Your task to perform on an android device: Open Chrome and go to the settings page Image 0: 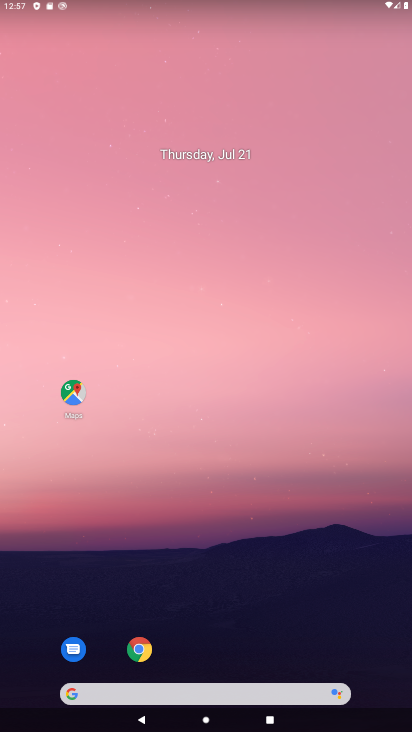
Step 0: click (141, 657)
Your task to perform on an android device: Open Chrome and go to the settings page Image 1: 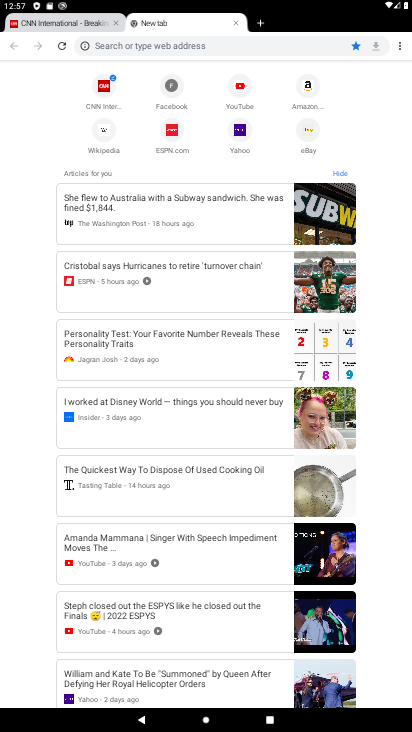
Step 1: click (398, 46)
Your task to perform on an android device: Open Chrome and go to the settings page Image 2: 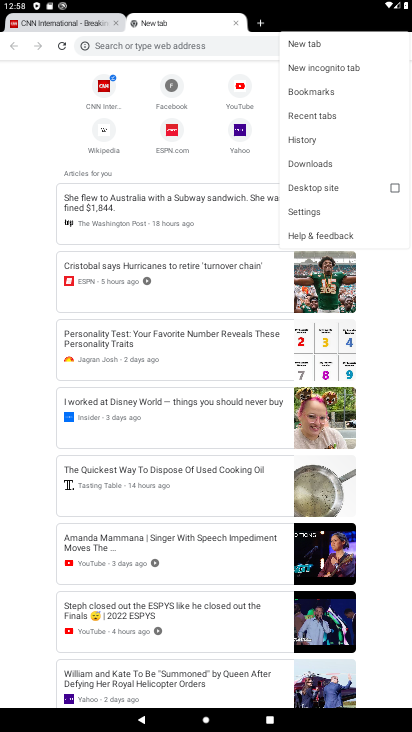
Step 2: click (361, 208)
Your task to perform on an android device: Open Chrome and go to the settings page Image 3: 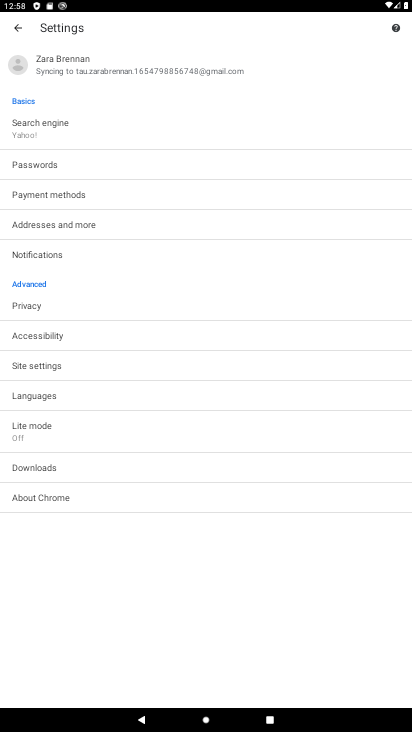
Step 3: task complete